Your task to perform on an android device: Go to CNN.com Image 0: 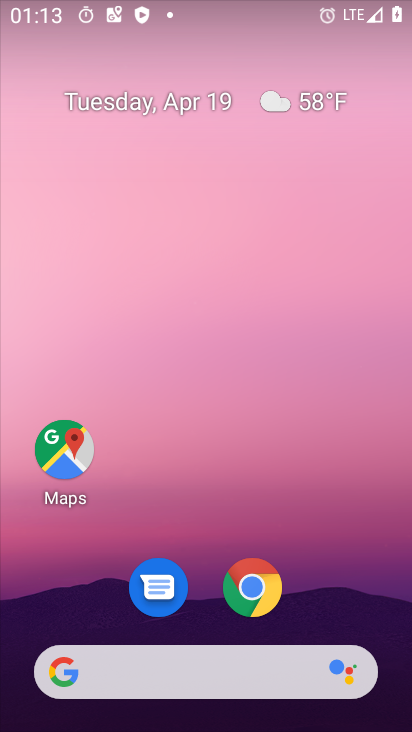
Step 0: drag from (382, 592) to (383, 112)
Your task to perform on an android device: Go to CNN.com Image 1: 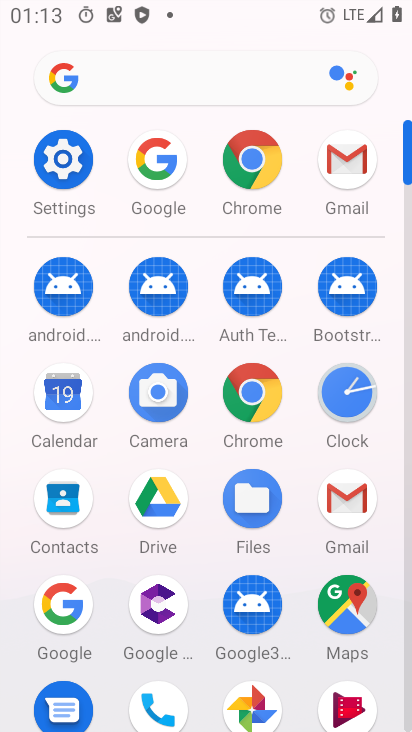
Step 1: click (226, 412)
Your task to perform on an android device: Go to CNN.com Image 2: 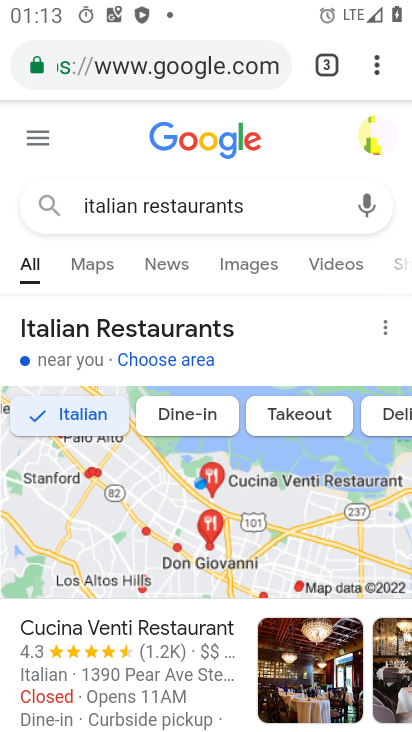
Step 2: click (267, 60)
Your task to perform on an android device: Go to CNN.com Image 3: 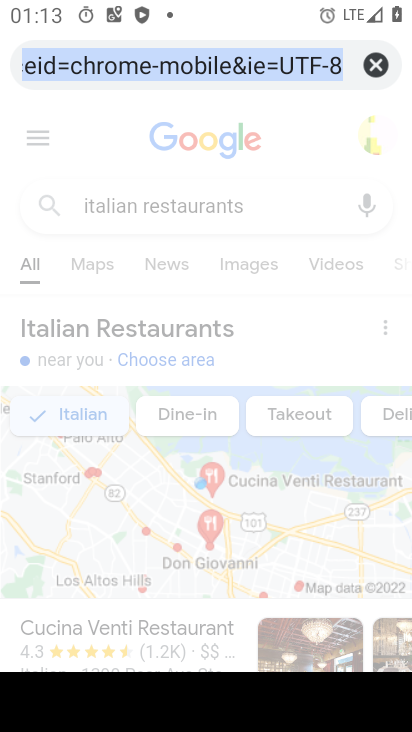
Step 3: click (365, 61)
Your task to perform on an android device: Go to CNN.com Image 4: 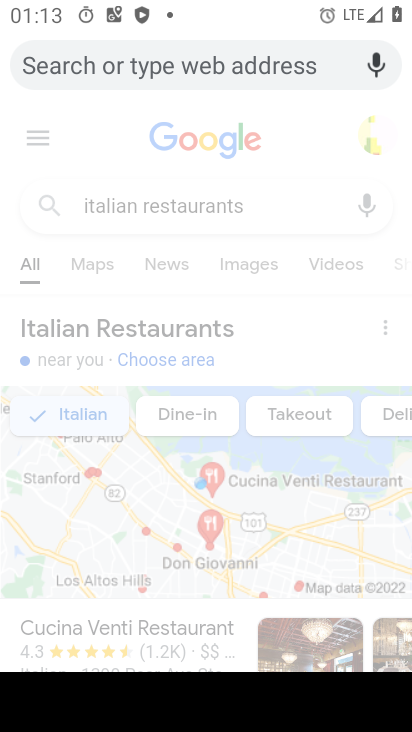
Step 4: click (180, 59)
Your task to perform on an android device: Go to CNN.com Image 5: 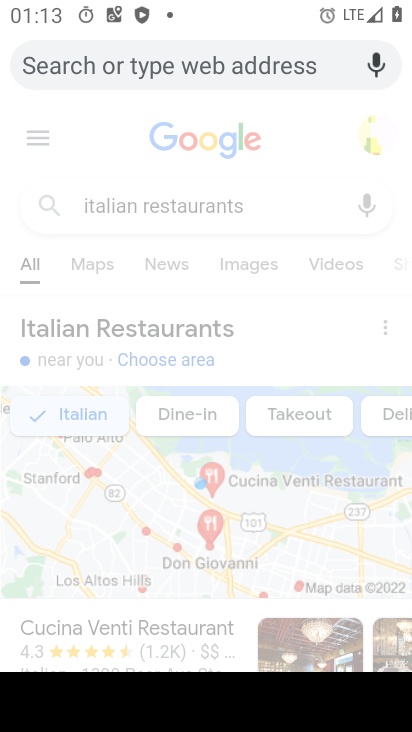
Step 5: type "cnn.com"
Your task to perform on an android device: Go to CNN.com Image 6: 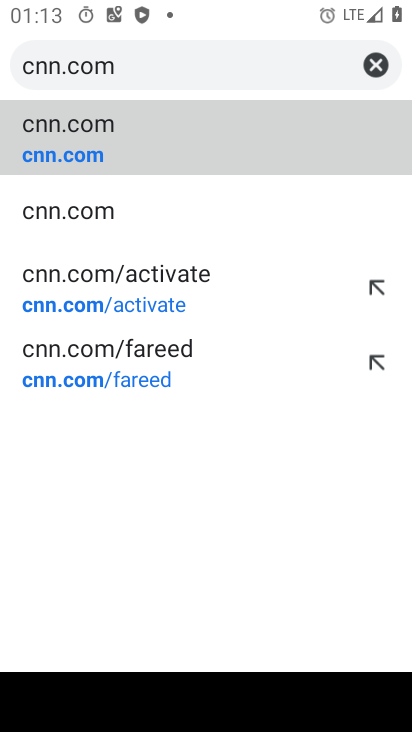
Step 6: click (100, 113)
Your task to perform on an android device: Go to CNN.com Image 7: 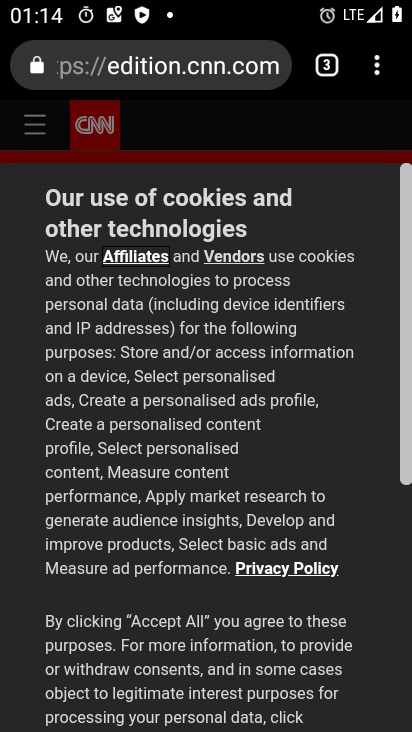
Step 7: task complete